Your task to perform on an android device: check android version Image 0: 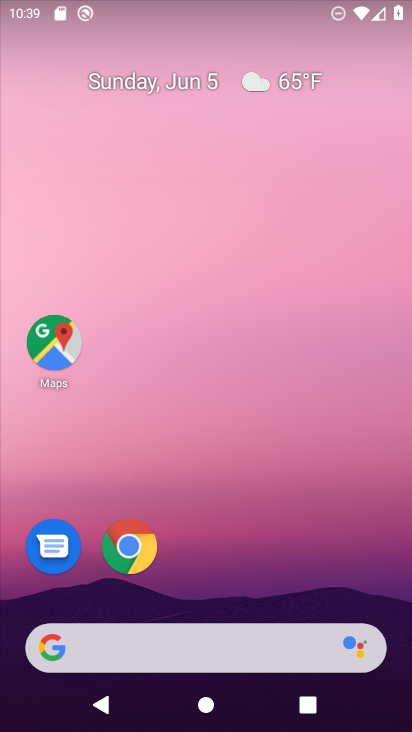
Step 0: drag from (198, 593) to (213, 238)
Your task to perform on an android device: check android version Image 1: 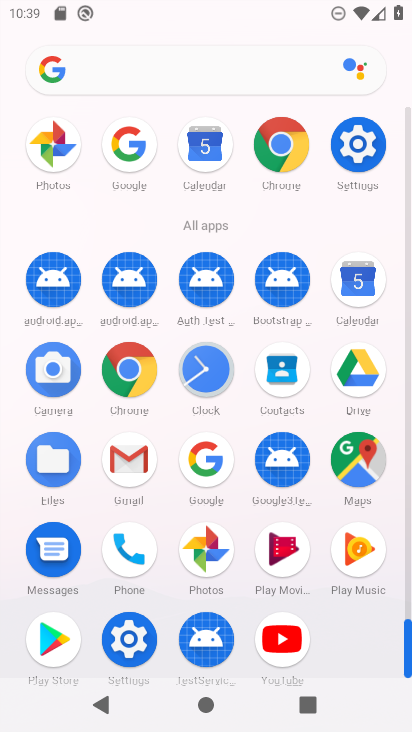
Step 1: click (350, 152)
Your task to perform on an android device: check android version Image 2: 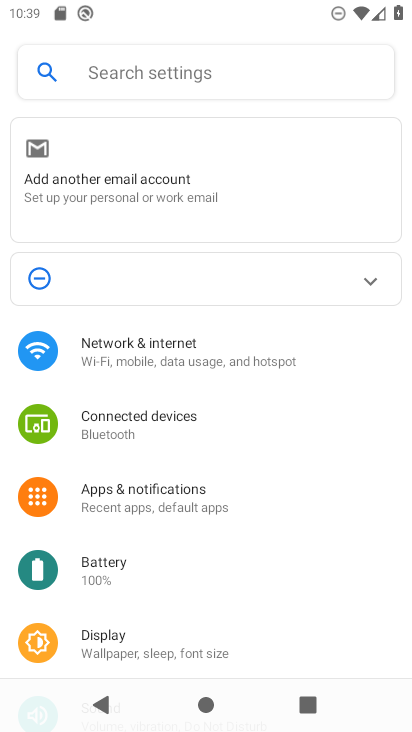
Step 2: drag from (228, 643) to (378, 26)
Your task to perform on an android device: check android version Image 3: 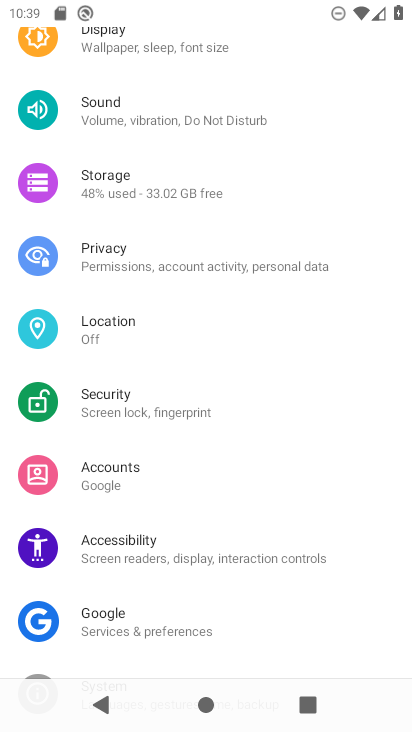
Step 3: drag from (261, 560) to (303, 71)
Your task to perform on an android device: check android version Image 4: 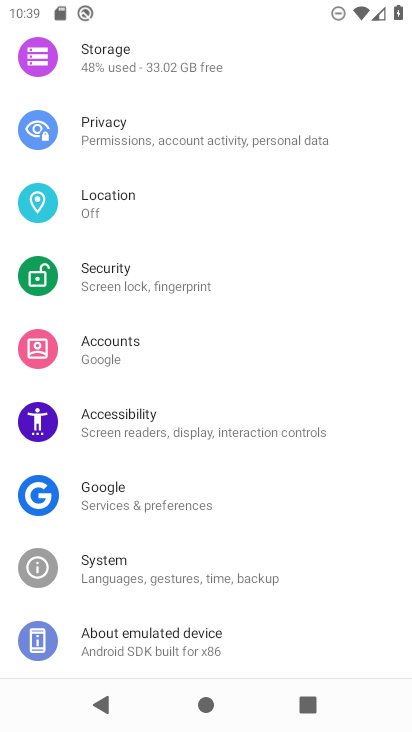
Step 4: click (165, 636)
Your task to perform on an android device: check android version Image 5: 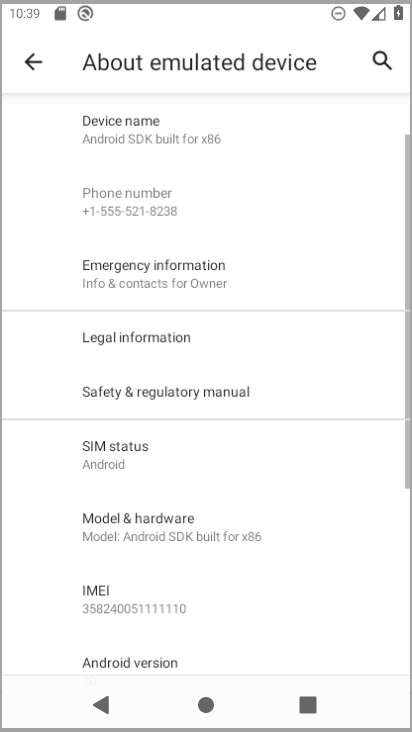
Step 5: drag from (164, 634) to (290, 89)
Your task to perform on an android device: check android version Image 6: 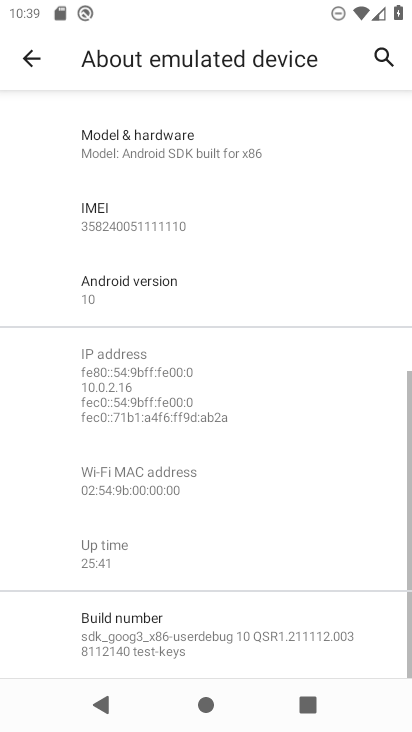
Step 6: click (187, 291)
Your task to perform on an android device: check android version Image 7: 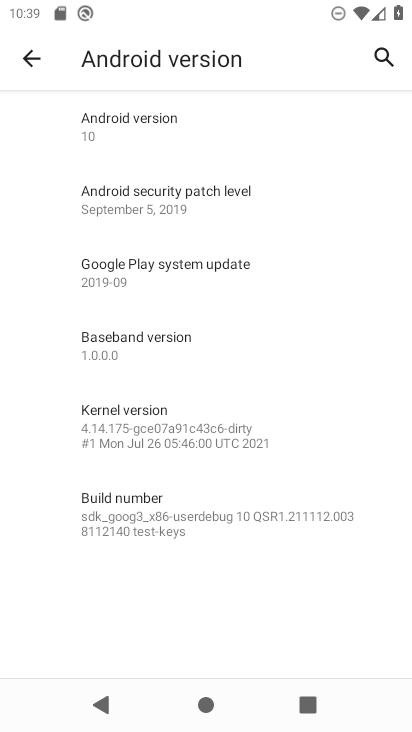
Step 7: task complete